Your task to perform on an android device: Open battery settings Image 0: 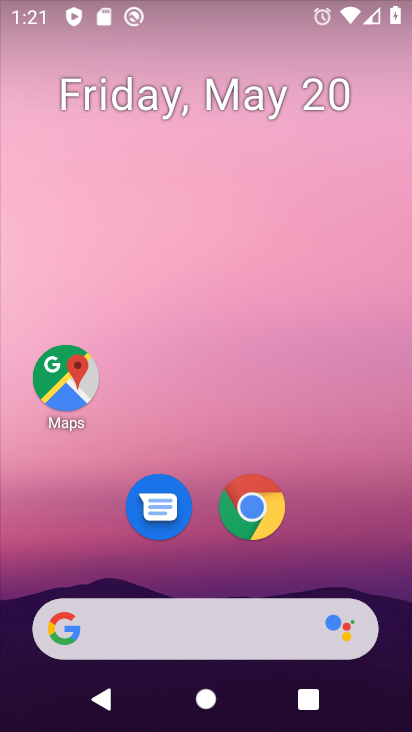
Step 0: drag from (402, 589) to (327, 68)
Your task to perform on an android device: Open battery settings Image 1: 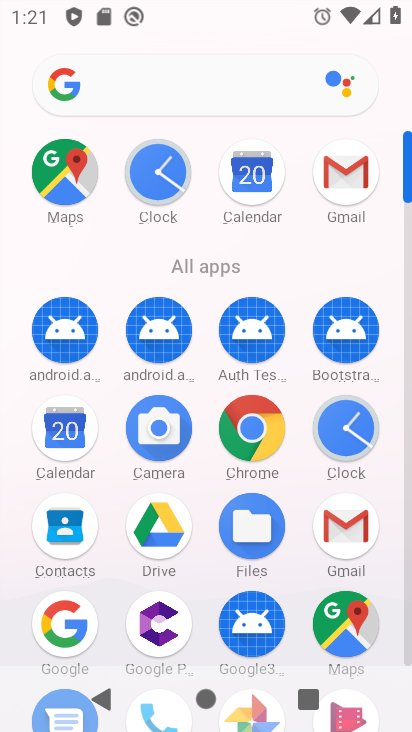
Step 1: click (403, 660)
Your task to perform on an android device: Open battery settings Image 2: 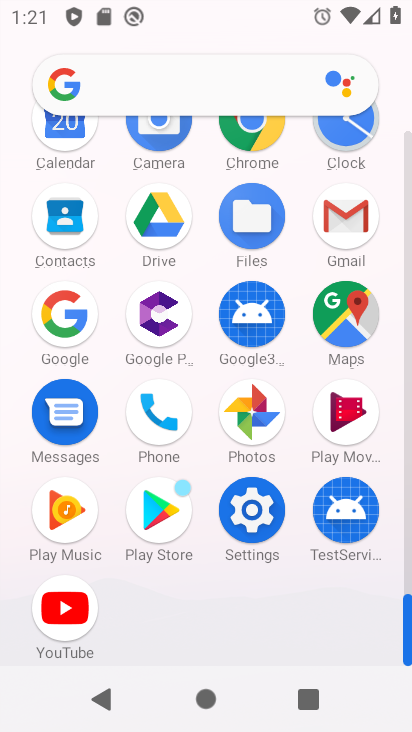
Step 2: click (264, 533)
Your task to perform on an android device: Open battery settings Image 3: 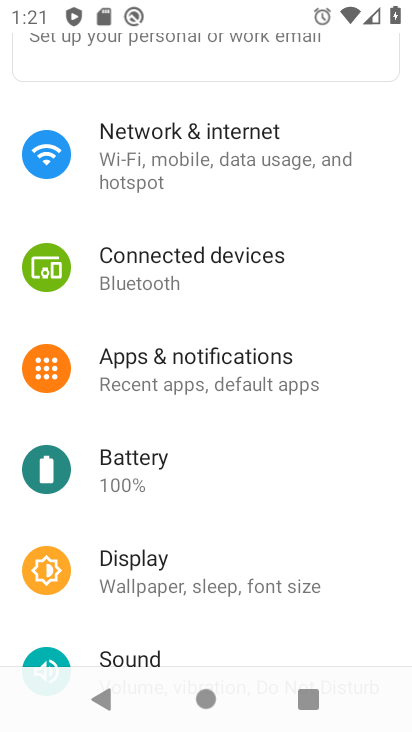
Step 3: click (245, 496)
Your task to perform on an android device: Open battery settings Image 4: 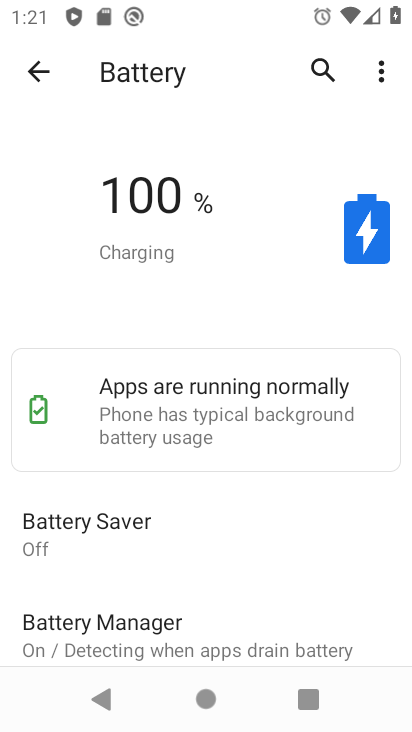
Step 4: task complete